Your task to perform on an android device: toggle javascript in the chrome app Image 0: 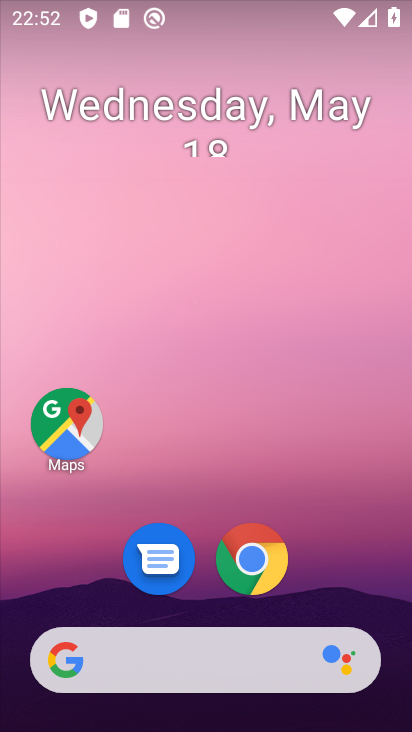
Step 0: click (248, 566)
Your task to perform on an android device: toggle javascript in the chrome app Image 1: 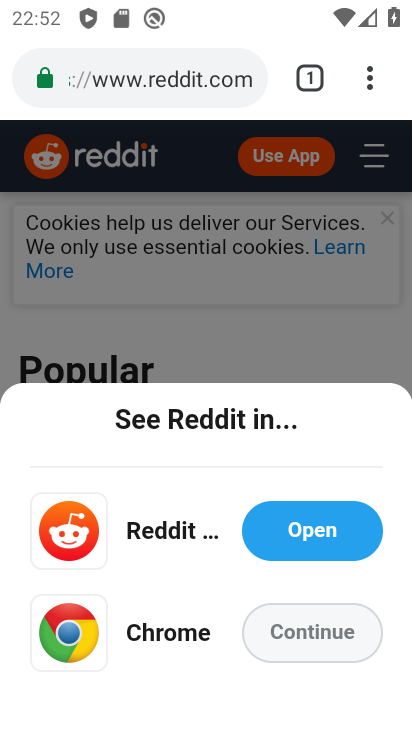
Step 1: click (296, 642)
Your task to perform on an android device: toggle javascript in the chrome app Image 2: 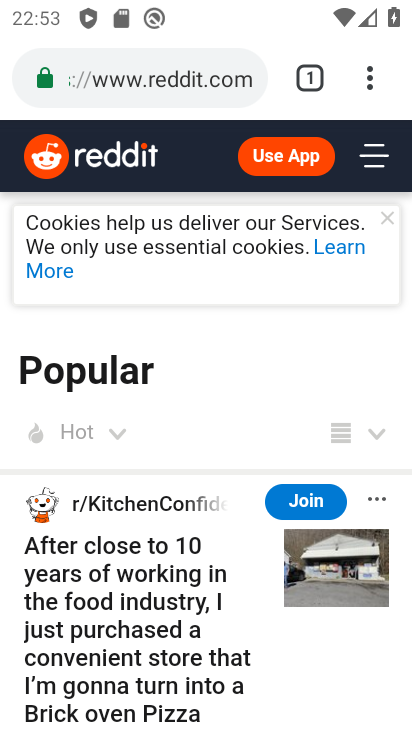
Step 2: press home button
Your task to perform on an android device: toggle javascript in the chrome app Image 3: 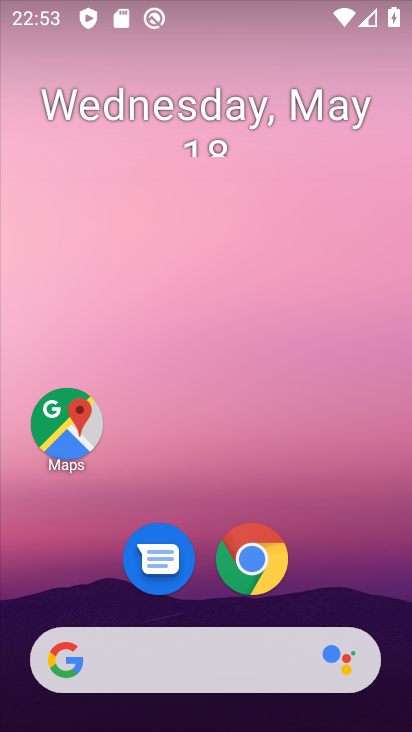
Step 3: click (299, 562)
Your task to perform on an android device: toggle javascript in the chrome app Image 4: 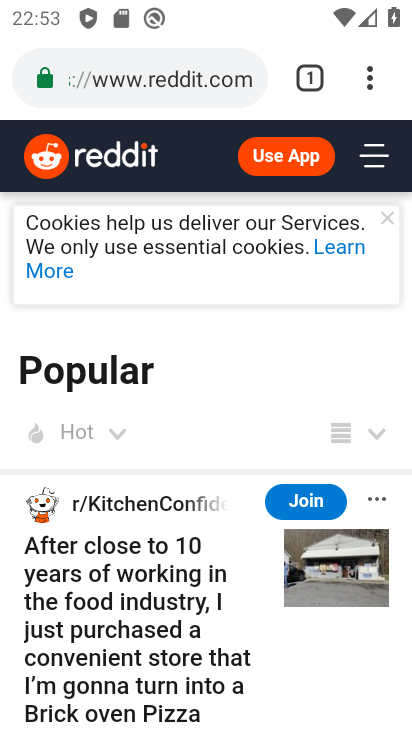
Step 4: click (373, 82)
Your task to perform on an android device: toggle javascript in the chrome app Image 5: 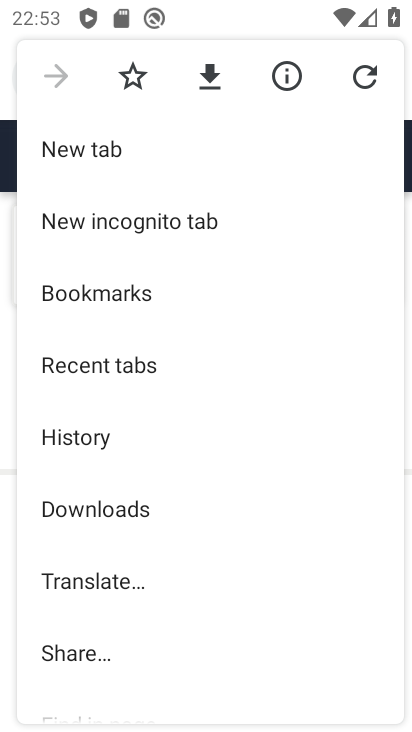
Step 5: drag from (112, 614) to (133, 86)
Your task to perform on an android device: toggle javascript in the chrome app Image 6: 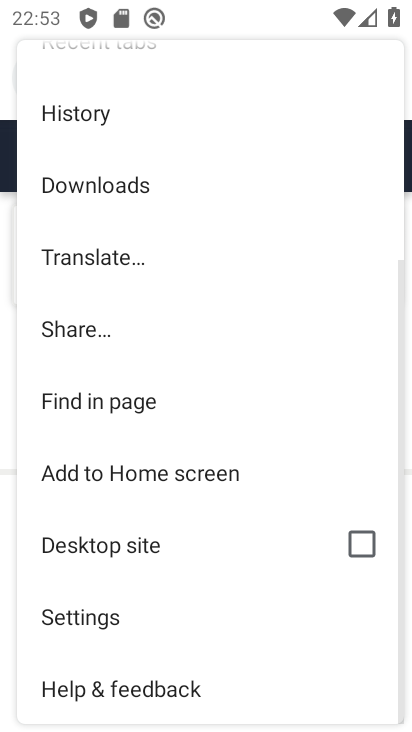
Step 6: click (91, 630)
Your task to perform on an android device: toggle javascript in the chrome app Image 7: 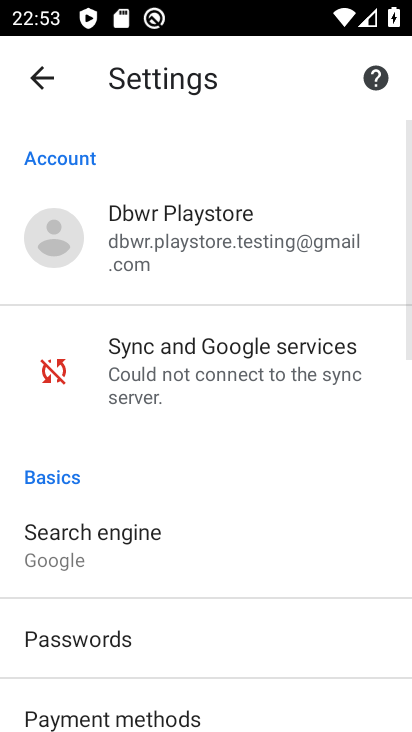
Step 7: drag from (133, 640) to (154, 166)
Your task to perform on an android device: toggle javascript in the chrome app Image 8: 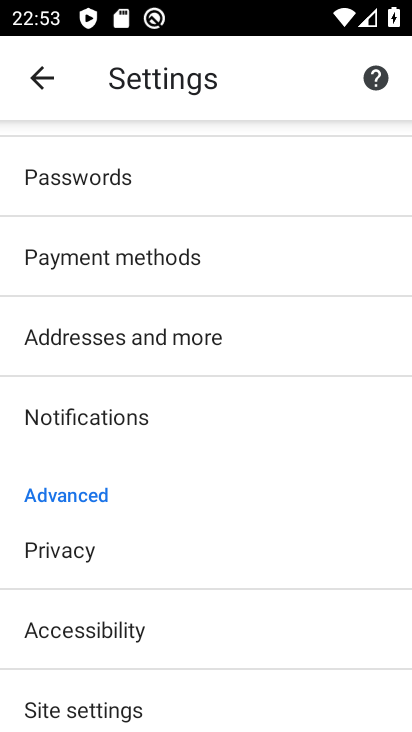
Step 8: click (79, 714)
Your task to perform on an android device: toggle javascript in the chrome app Image 9: 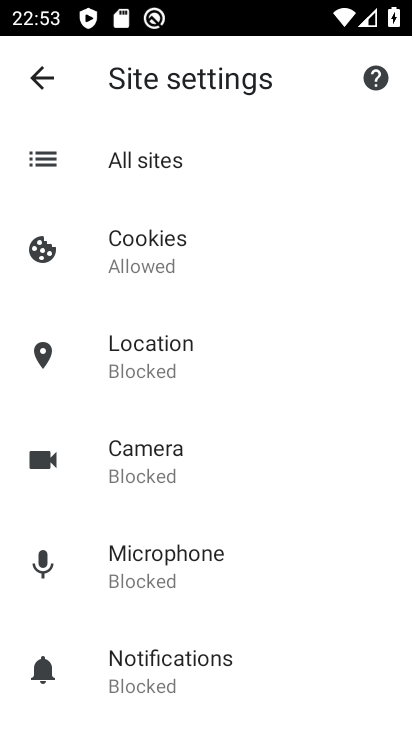
Step 9: drag from (168, 436) to (168, 321)
Your task to perform on an android device: toggle javascript in the chrome app Image 10: 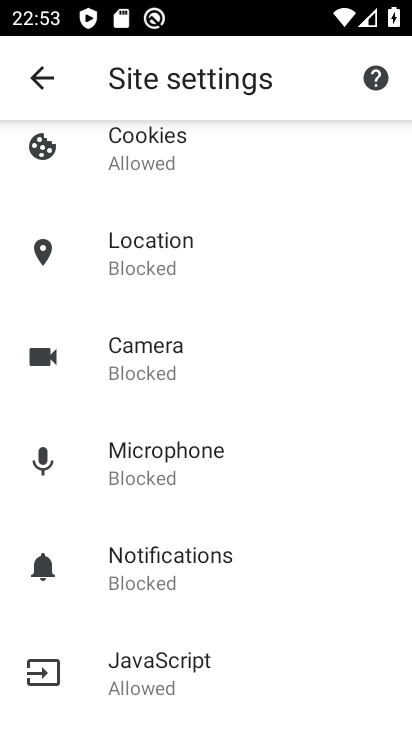
Step 10: click (162, 670)
Your task to perform on an android device: toggle javascript in the chrome app Image 11: 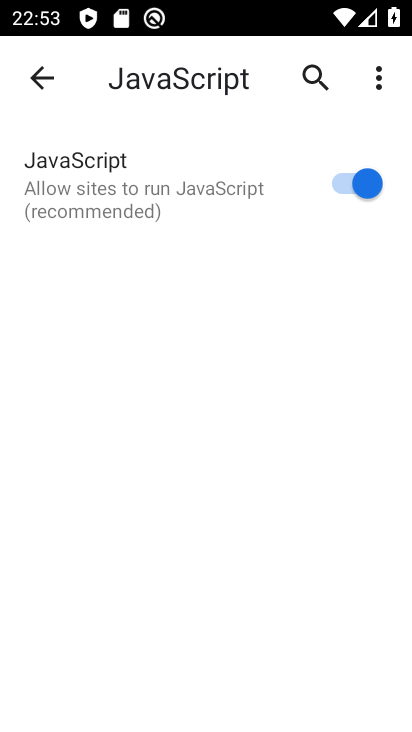
Step 11: click (348, 196)
Your task to perform on an android device: toggle javascript in the chrome app Image 12: 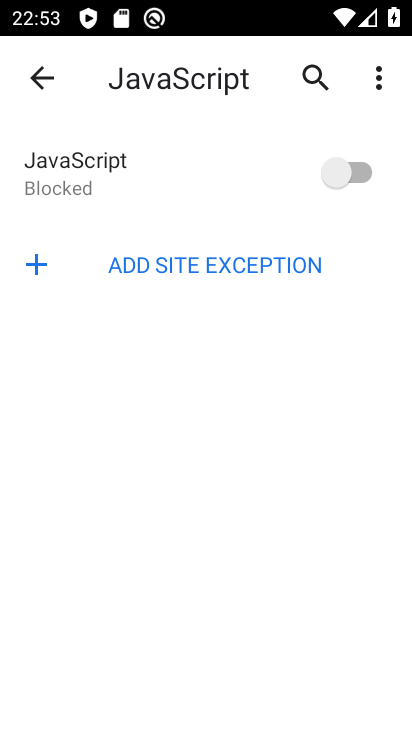
Step 12: task complete